Your task to perform on an android device: Search for vegetarian restaurants on Maps Image 0: 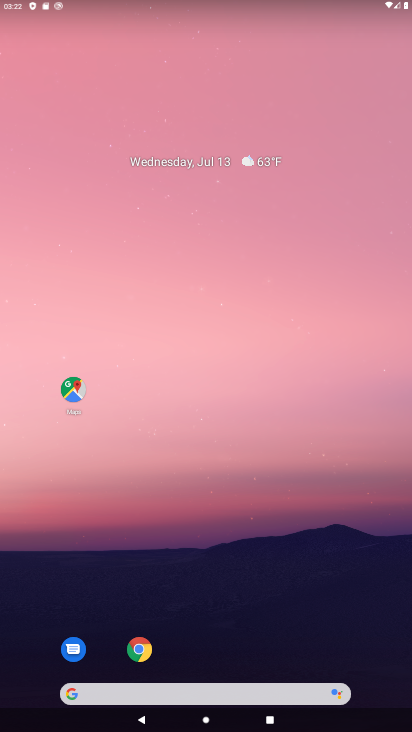
Step 0: click (75, 392)
Your task to perform on an android device: Search for vegetarian restaurants on Maps Image 1: 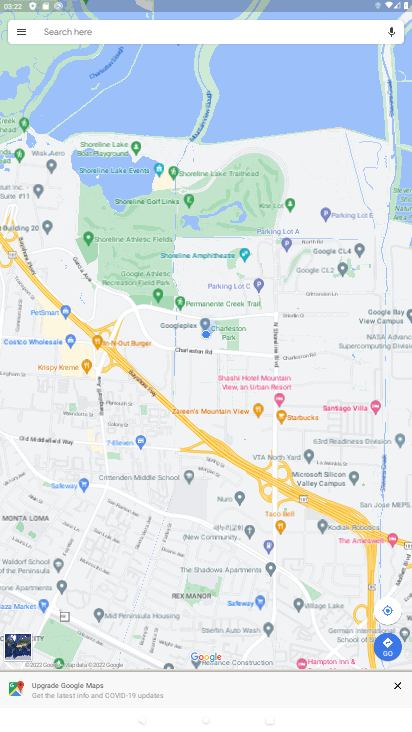
Step 1: click (140, 35)
Your task to perform on an android device: Search for vegetarian restaurants on Maps Image 2: 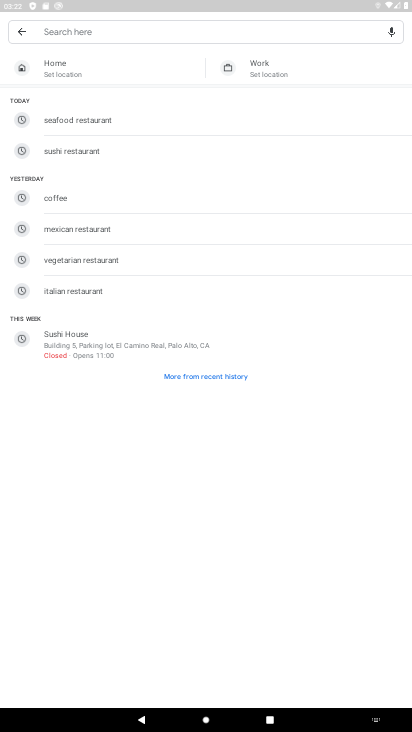
Step 2: type "vegetarian restaurants"
Your task to perform on an android device: Search for vegetarian restaurants on Maps Image 3: 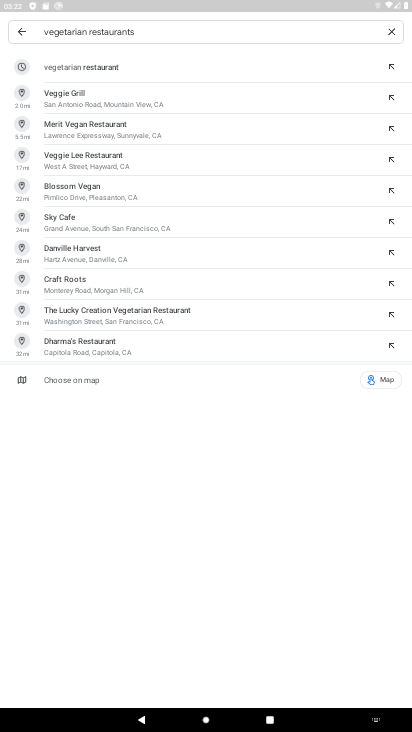
Step 3: click (107, 60)
Your task to perform on an android device: Search for vegetarian restaurants on Maps Image 4: 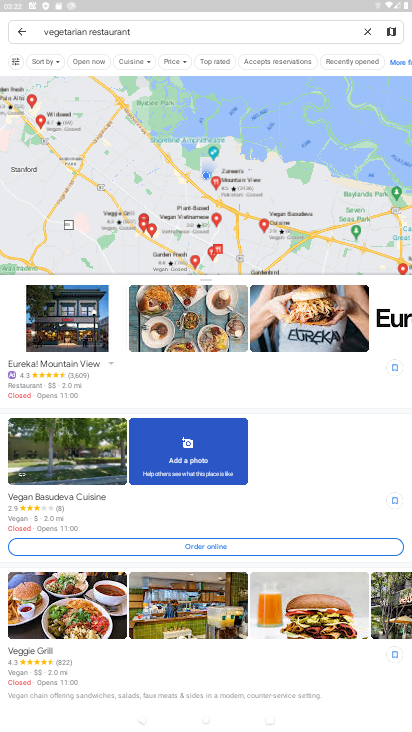
Step 4: task complete